Your task to perform on an android device: change notifications settings Image 0: 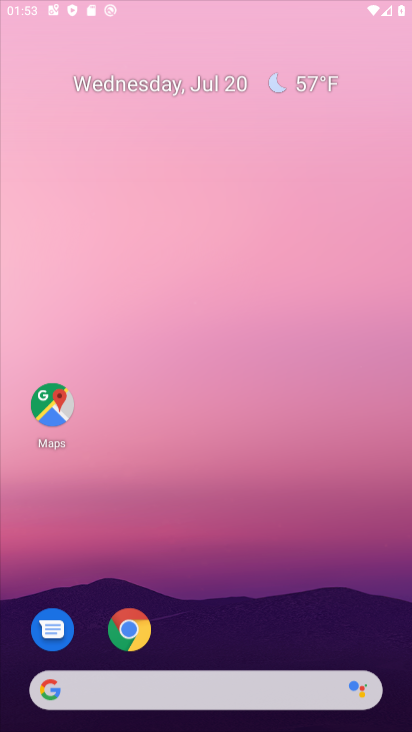
Step 0: drag from (272, 572) to (292, 153)
Your task to perform on an android device: change notifications settings Image 1: 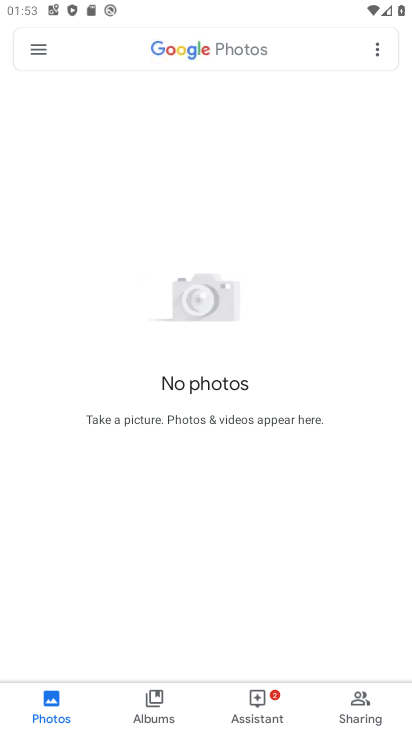
Step 1: press home button
Your task to perform on an android device: change notifications settings Image 2: 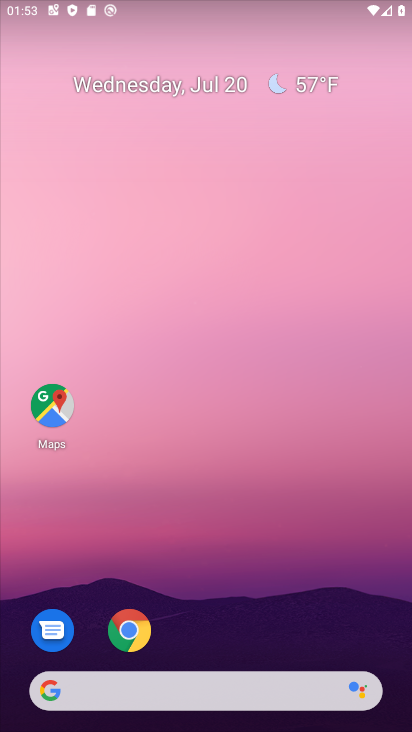
Step 2: drag from (260, 586) to (285, 144)
Your task to perform on an android device: change notifications settings Image 3: 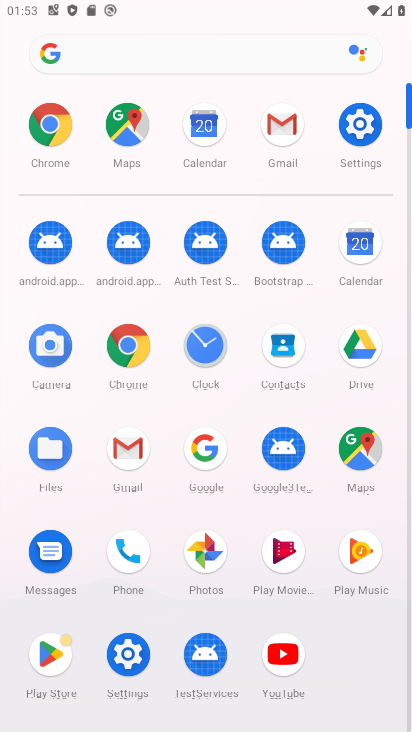
Step 3: click (344, 125)
Your task to perform on an android device: change notifications settings Image 4: 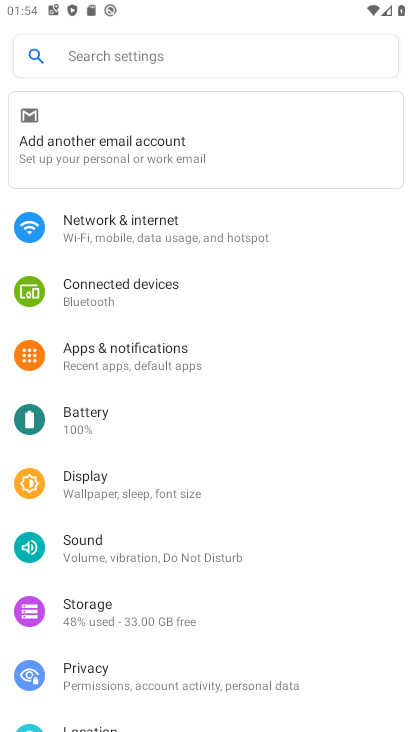
Step 4: click (158, 367)
Your task to perform on an android device: change notifications settings Image 5: 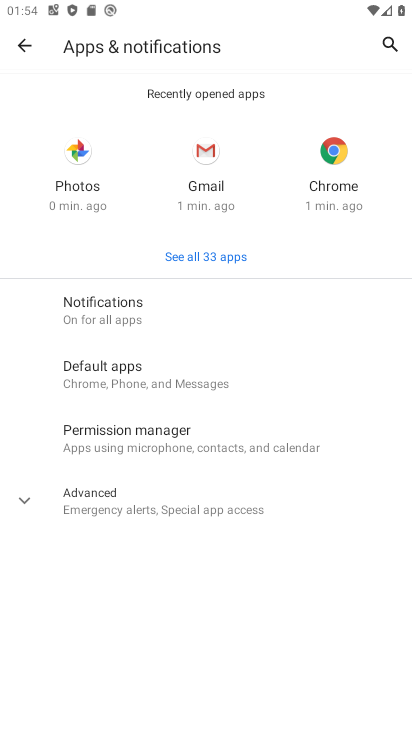
Step 5: click (96, 309)
Your task to perform on an android device: change notifications settings Image 6: 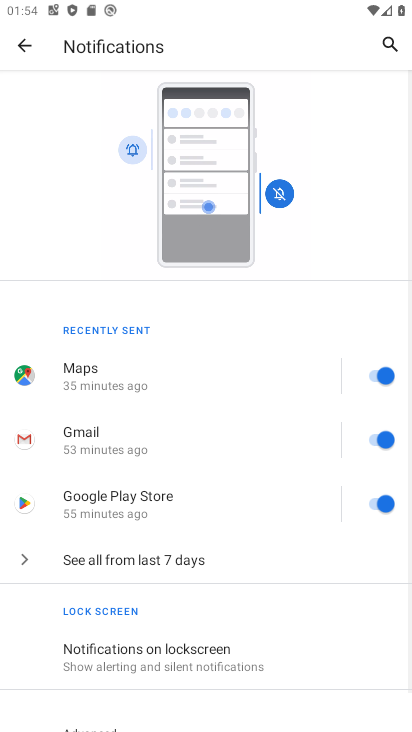
Step 6: task complete